Your task to perform on an android device: Open the calendar app, open the side menu, and click the "Day" option Image 0: 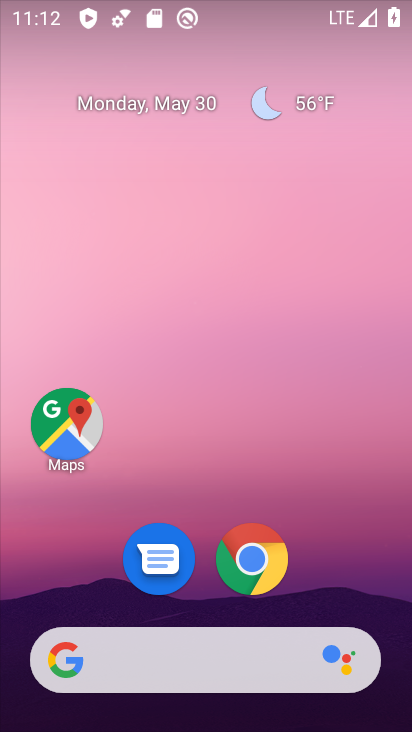
Step 0: drag from (343, 583) to (291, 38)
Your task to perform on an android device: Open the calendar app, open the side menu, and click the "Day" option Image 1: 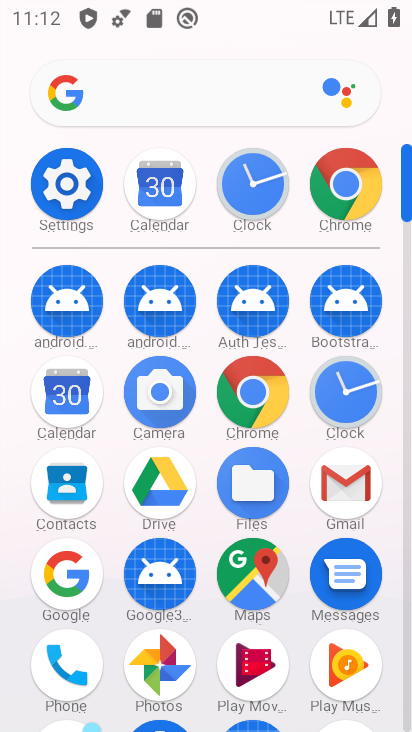
Step 1: click (169, 201)
Your task to perform on an android device: Open the calendar app, open the side menu, and click the "Day" option Image 2: 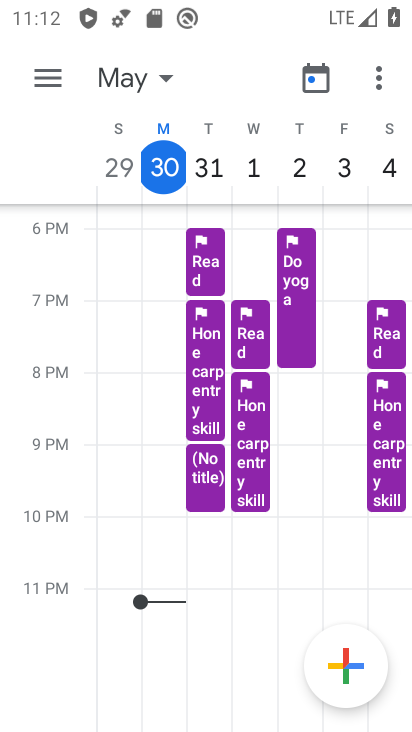
Step 2: click (48, 89)
Your task to perform on an android device: Open the calendar app, open the side menu, and click the "Day" option Image 3: 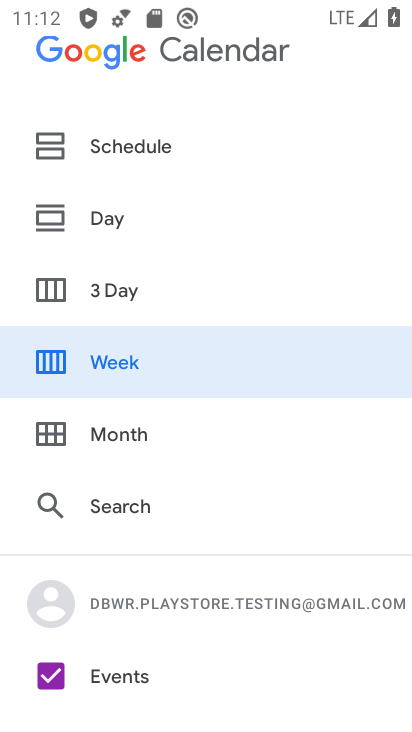
Step 3: click (94, 203)
Your task to perform on an android device: Open the calendar app, open the side menu, and click the "Day" option Image 4: 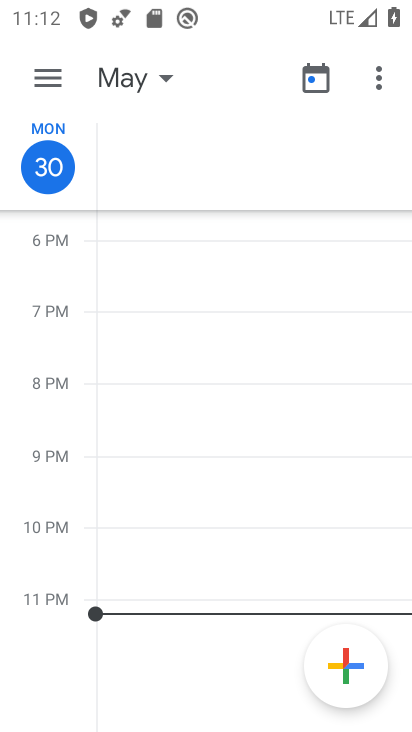
Step 4: task complete